Your task to perform on an android device: Show me productivity apps on the Play Store Image 0: 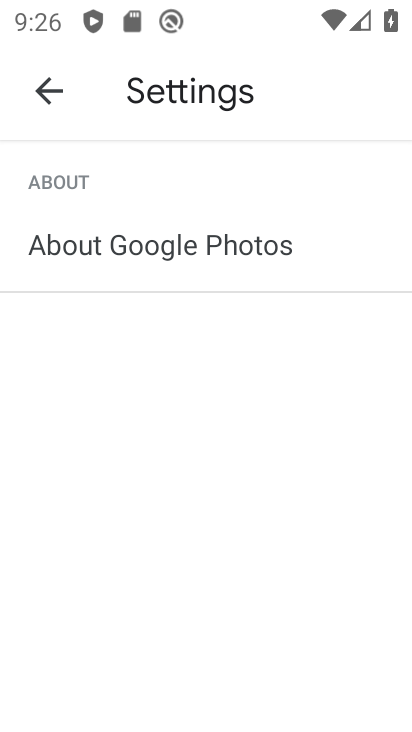
Step 0: press home button
Your task to perform on an android device: Show me productivity apps on the Play Store Image 1: 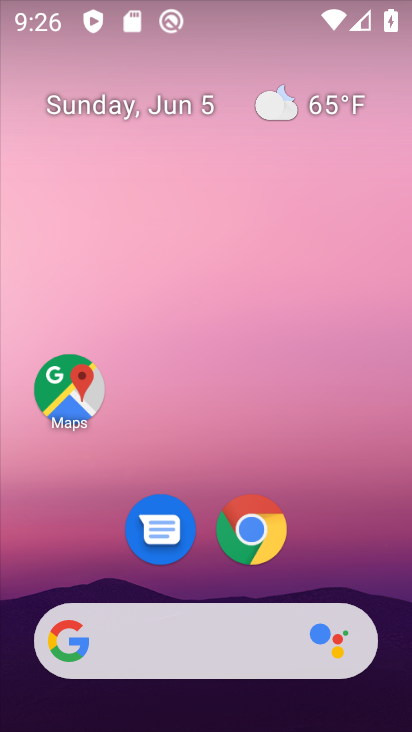
Step 1: drag from (194, 707) to (297, 1)
Your task to perform on an android device: Show me productivity apps on the Play Store Image 2: 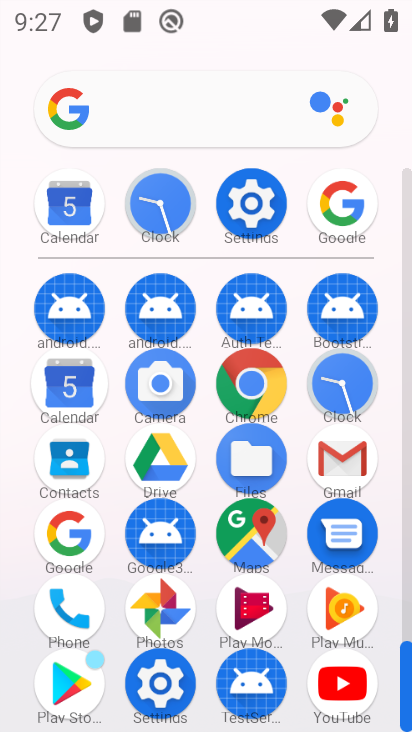
Step 2: click (71, 661)
Your task to perform on an android device: Show me productivity apps on the Play Store Image 3: 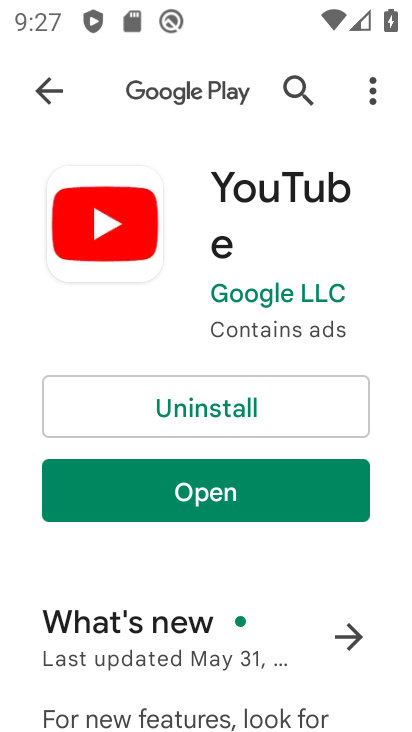
Step 3: click (18, 100)
Your task to perform on an android device: Show me productivity apps on the Play Store Image 4: 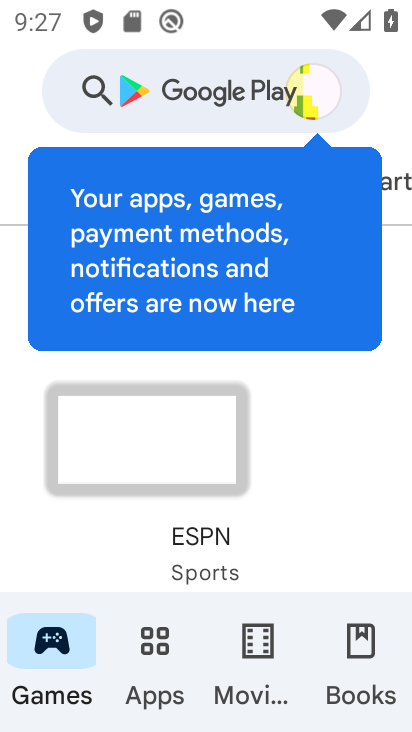
Step 4: click (172, 667)
Your task to perform on an android device: Show me productivity apps on the Play Store Image 5: 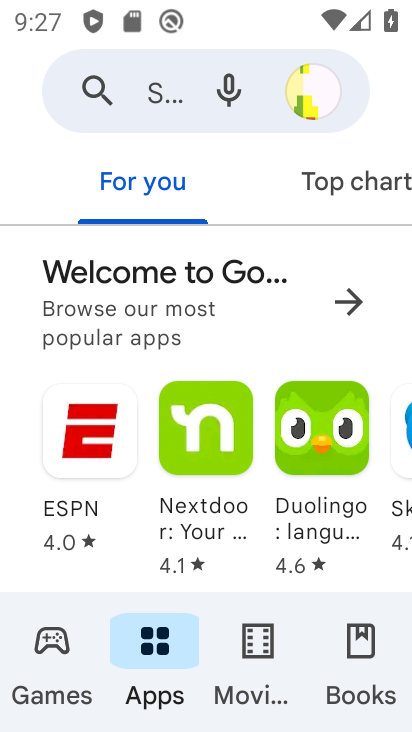
Step 5: drag from (229, 182) to (139, 210)
Your task to perform on an android device: Show me productivity apps on the Play Store Image 6: 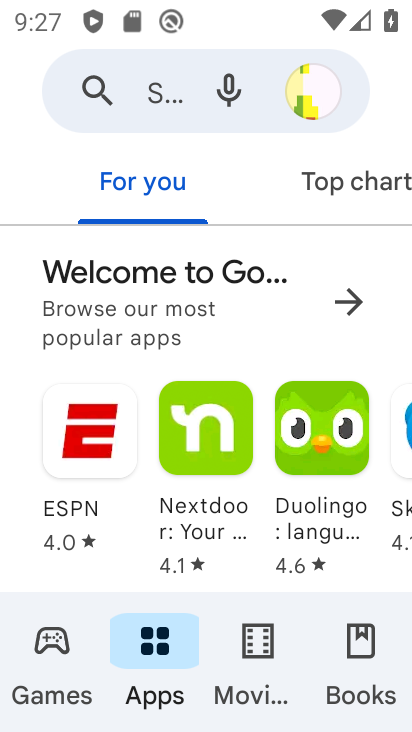
Step 6: drag from (139, 148) to (119, 235)
Your task to perform on an android device: Show me productivity apps on the Play Store Image 7: 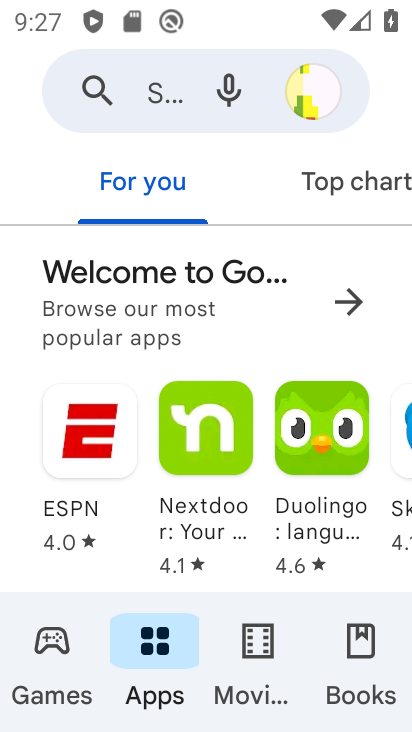
Step 7: drag from (394, 198) to (78, 219)
Your task to perform on an android device: Show me productivity apps on the Play Store Image 8: 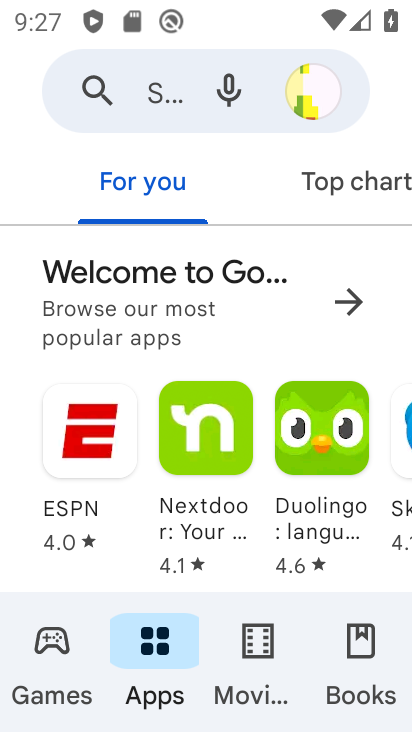
Step 8: drag from (355, 177) to (53, 273)
Your task to perform on an android device: Show me productivity apps on the Play Store Image 9: 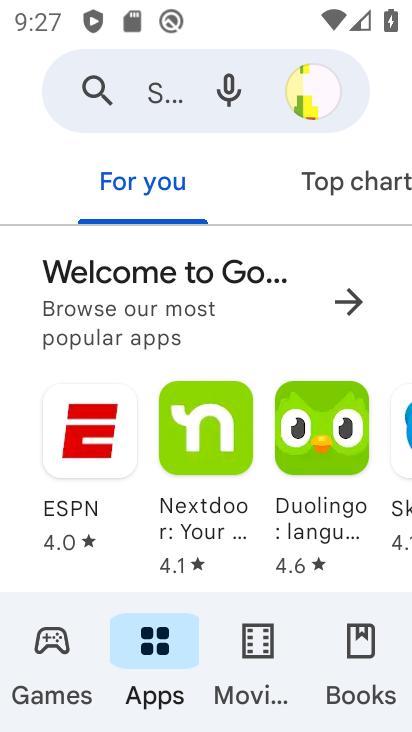
Step 9: drag from (358, 183) to (22, 207)
Your task to perform on an android device: Show me productivity apps on the Play Store Image 10: 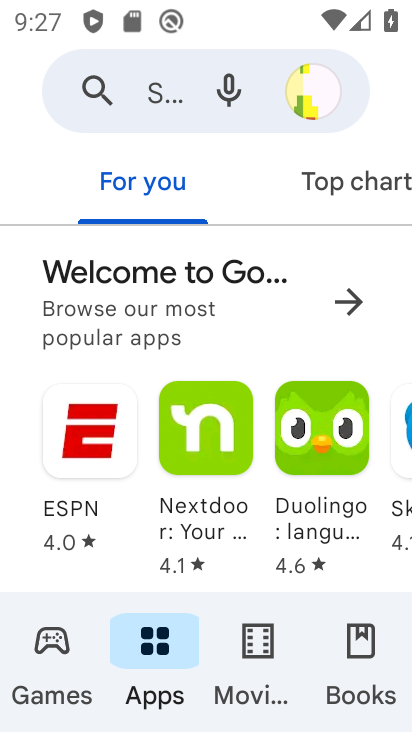
Step 10: drag from (393, 198) to (57, 273)
Your task to perform on an android device: Show me productivity apps on the Play Store Image 11: 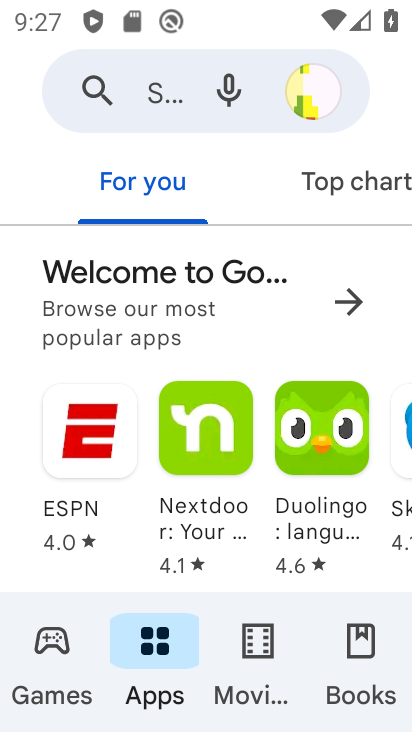
Step 11: drag from (347, 170) to (33, 287)
Your task to perform on an android device: Show me productivity apps on the Play Store Image 12: 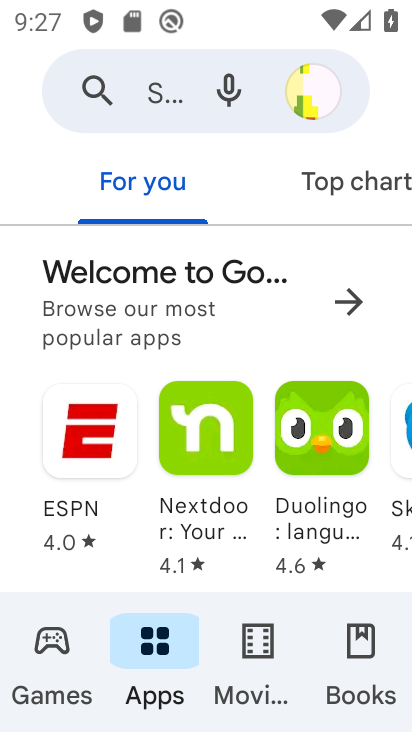
Step 12: drag from (390, 187) to (4, 323)
Your task to perform on an android device: Show me productivity apps on the Play Store Image 13: 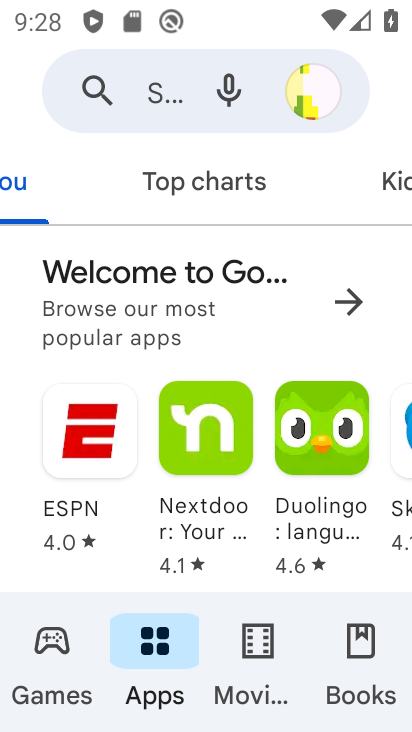
Step 13: drag from (349, 212) to (50, 201)
Your task to perform on an android device: Show me productivity apps on the Play Store Image 14: 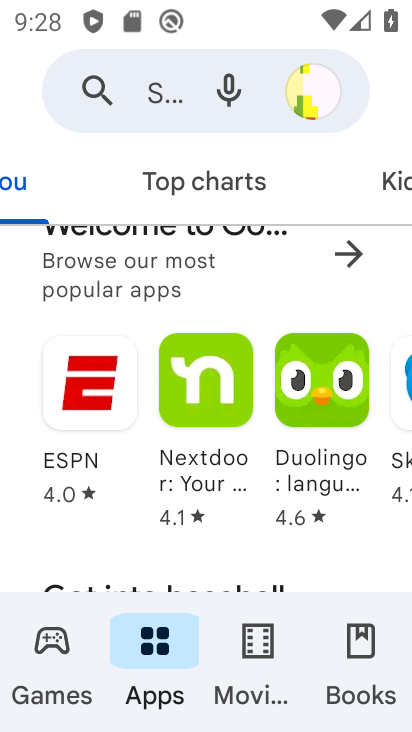
Step 14: drag from (370, 207) to (18, 214)
Your task to perform on an android device: Show me productivity apps on the Play Store Image 15: 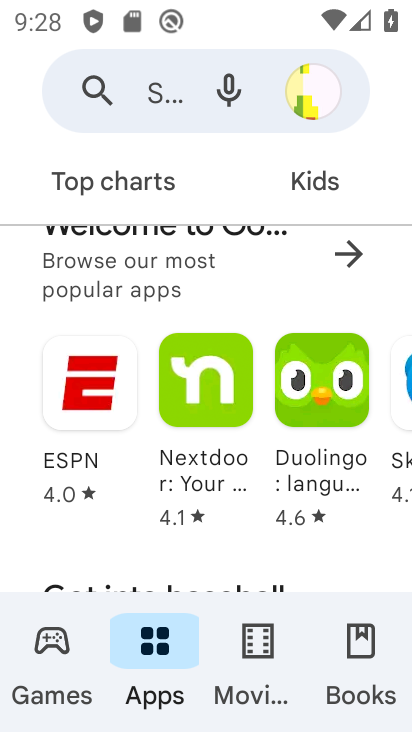
Step 15: drag from (378, 194) to (13, 240)
Your task to perform on an android device: Show me productivity apps on the Play Store Image 16: 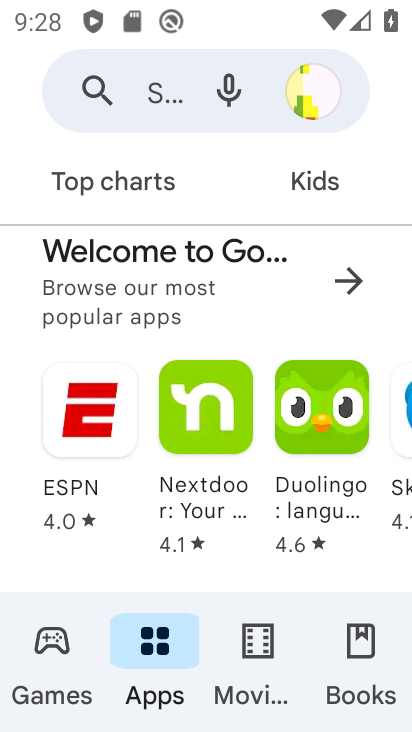
Step 16: drag from (392, 198) to (32, 151)
Your task to perform on an android device: Show me productivity apps on the Play Store Image 17: 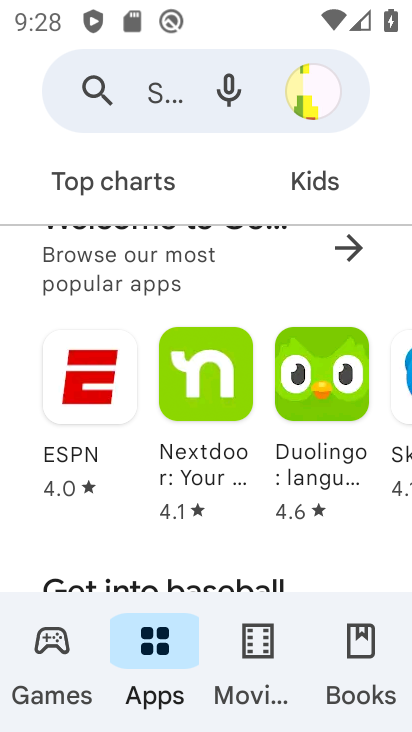
Step 17: drag from (348, 171) to (0, 198)
Your task to perform on an android device: Show me productivity apps on the Play Store Image 18: 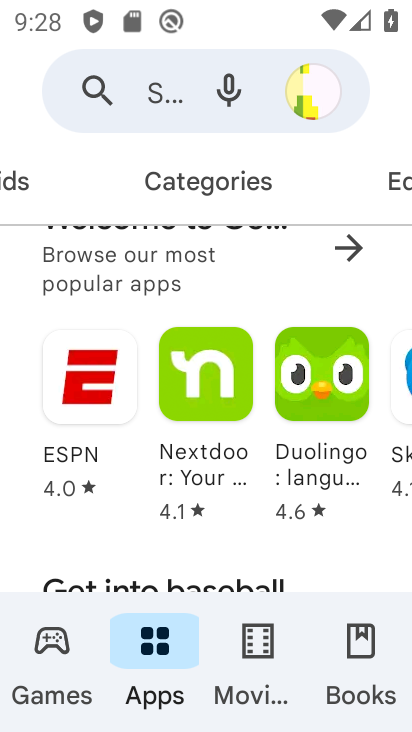
Step 18: click (220, 179)
Your task to perform on an android device: Show me productivity apps on the Play Store Image 19: 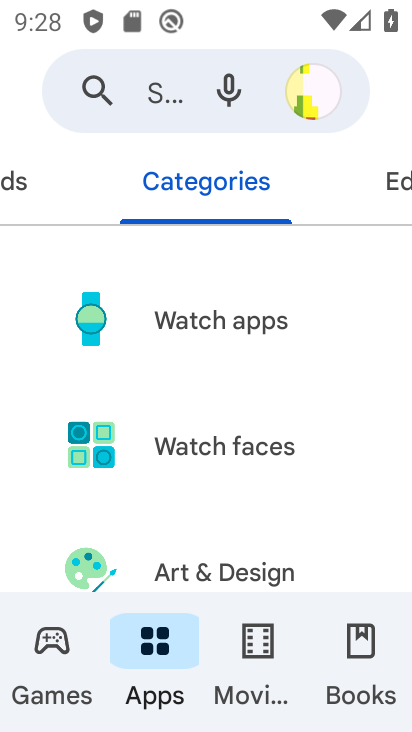
Step 19: drag from (307, 539) to (266, 108)
Your task to perform on an android device: Show me productivity apps on the Play Store Image 20: 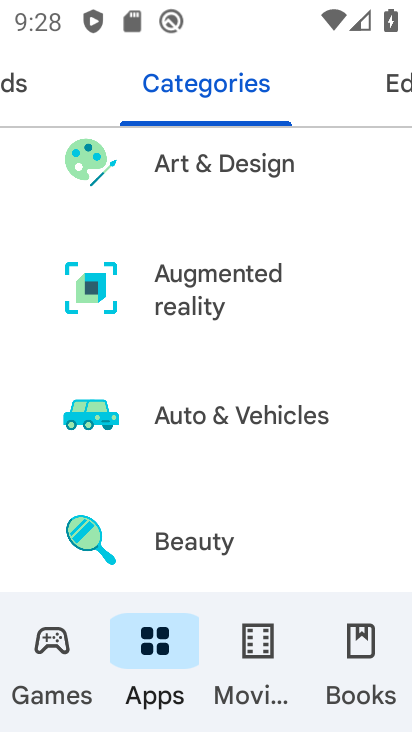
Step 20: drag from (268, 479) to (278, 0)
Your task to perform on an android device: Show me productivity apps on the Play Store Image 21: 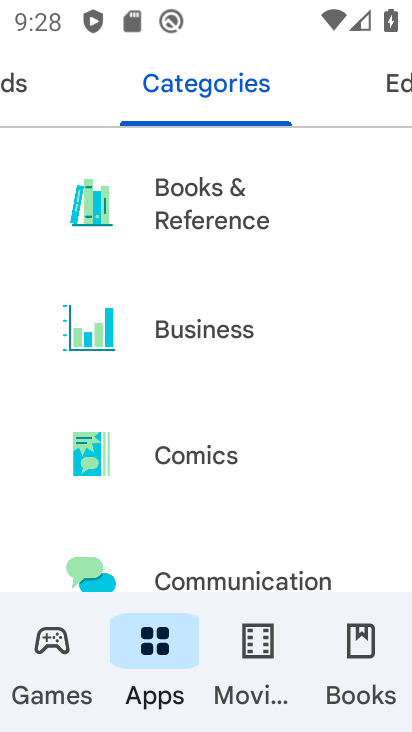
Step 21: drag from (234, 564) to (301, 16)
Your task to perform on an android device: Show me productivity apps on the Play Store Image 22: 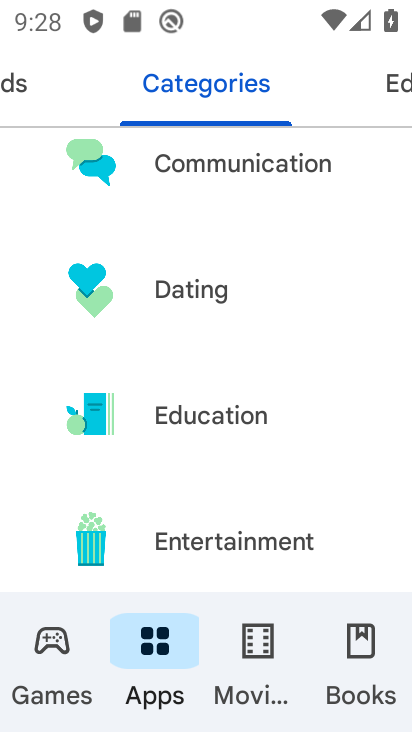
Step 22: drag from (240, 536) to (329, 1)
Your task to perform on an android device: Show me productivity apps on the Play Store Image 23: 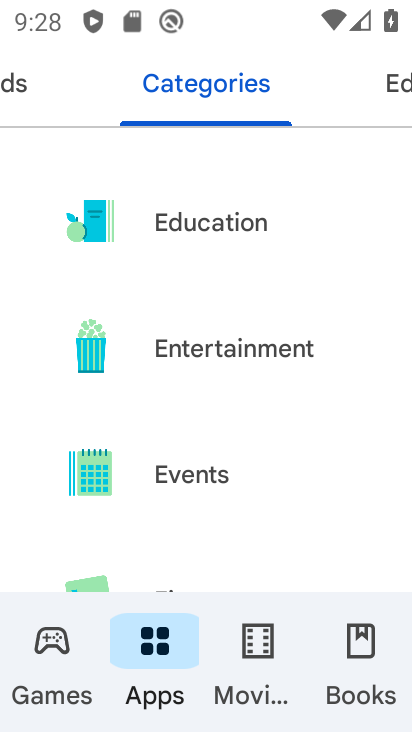
Step 23: drag from (263, 592) to (297, 27)
Your task to perform on an android device: Show me productivity apps on the Play Store Image 24: 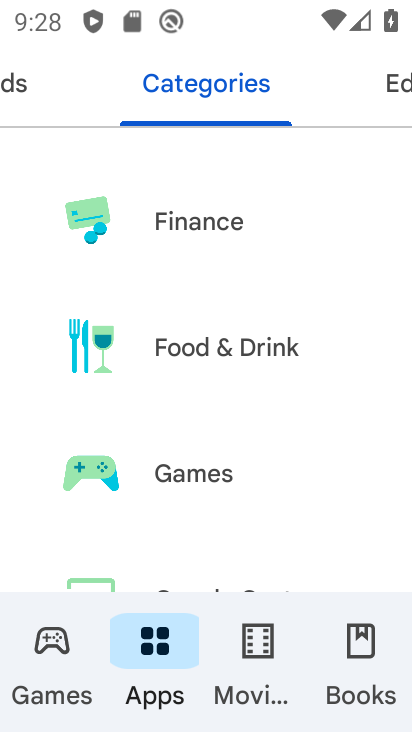
Step 24: drag from (299, 528) to (226, 73)
Your task to perform on an android device: Show me productivity apps on the Play Store Image 25: 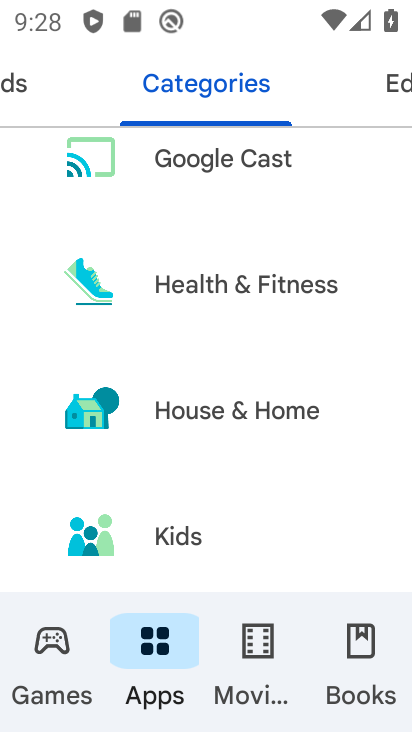
Step 25: drag from (231, 535) to (245, 69)
Your task to perform on an android device: Show me productivity apps on the Play Store Image 26: 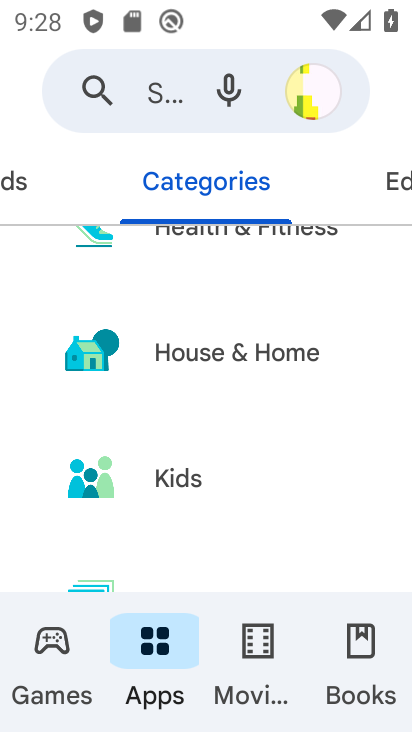
Step 26: drag from (253, 568) to (231, 18)
Your task to perform on an android device: Show me productivity apps on the Play Store Image 27: 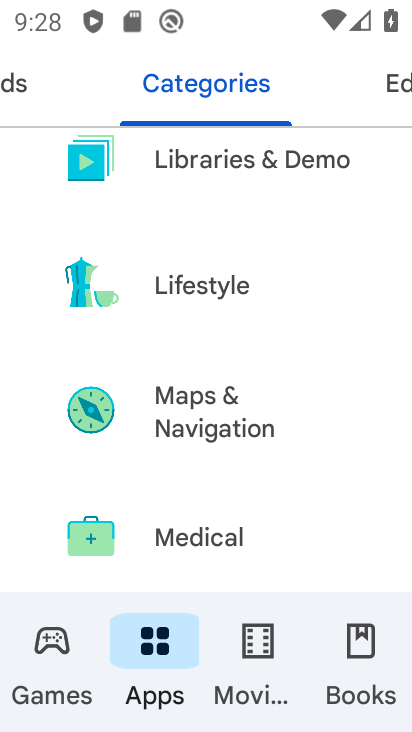
Step 27: drag from (237, 497) to (216, 27)
Your task to perform on an android device: Show me productivity apps on the Play Store Image 28: 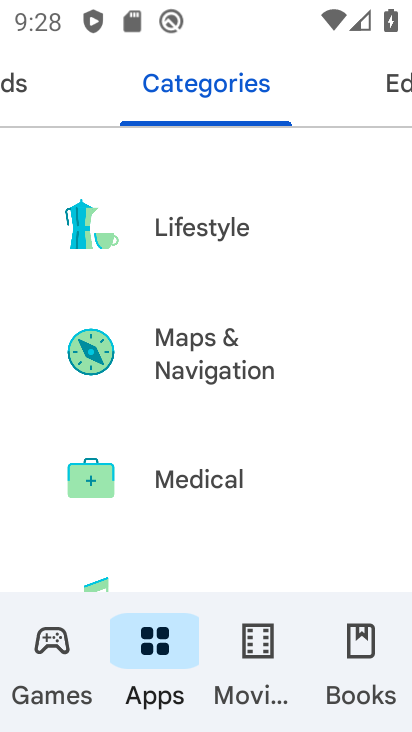
Step 28: drag from (232, 572) to (256, 43)
Your task to perform on an android device: Show me productivity apps on the Play Store Image 29: 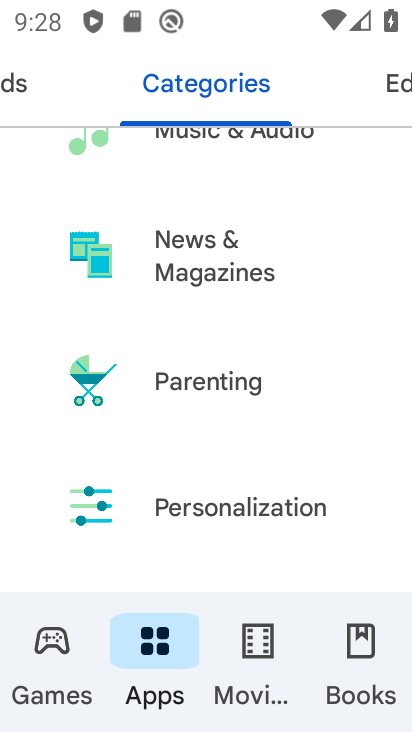
Step 29: drag from (279, 398) to (295, 3)
Your task to perform on an android device: Show me productivity apps on the Play Store Image 30: 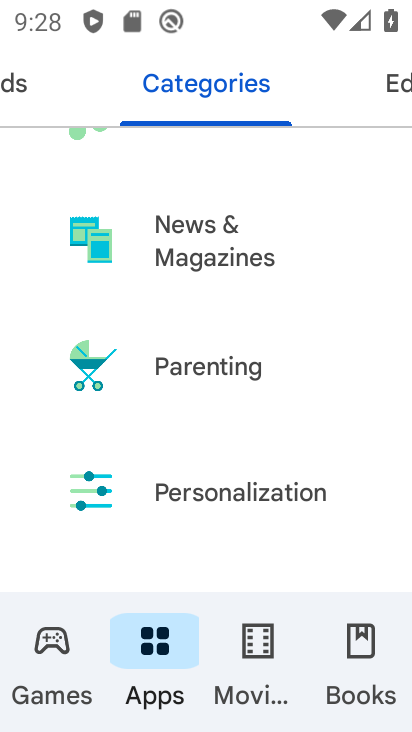
Step 30: drag from (263, 485) to (288, 0)
Your task to perform on an android device: Show me productivity apps on the Play Store Image 31: 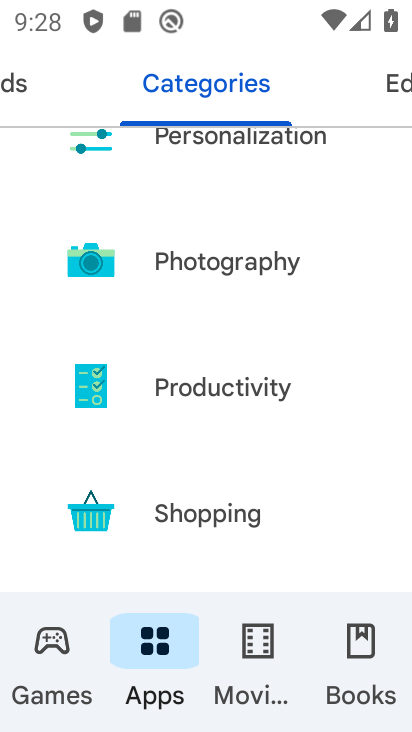
Step 31: click (261, 393)
Your task to perform on an android device: Show me productivity apps on the Play Store Image 32: 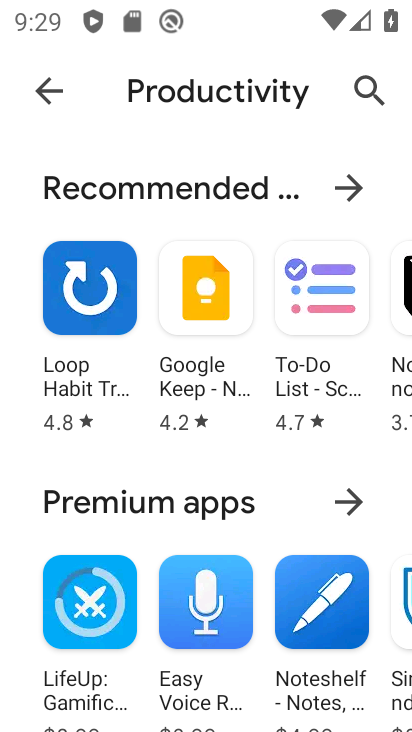
Step 32: task complete